Your task to perform on an android device: turn off picture-in-picture Image 0: 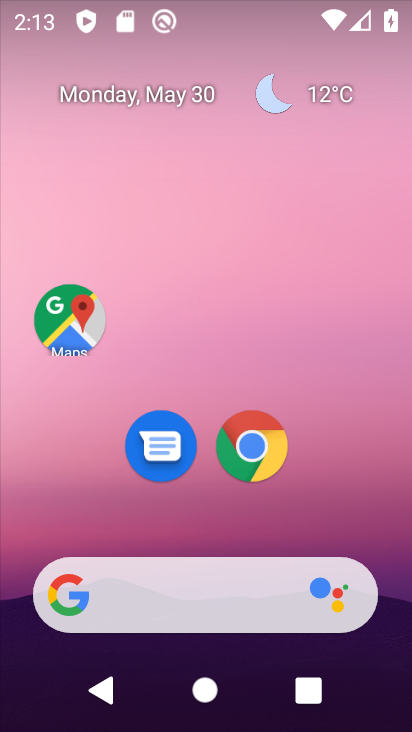
Step 0: click (257, 449)
Your task to perform on an android device: turn off picture-in-picture Image 1: 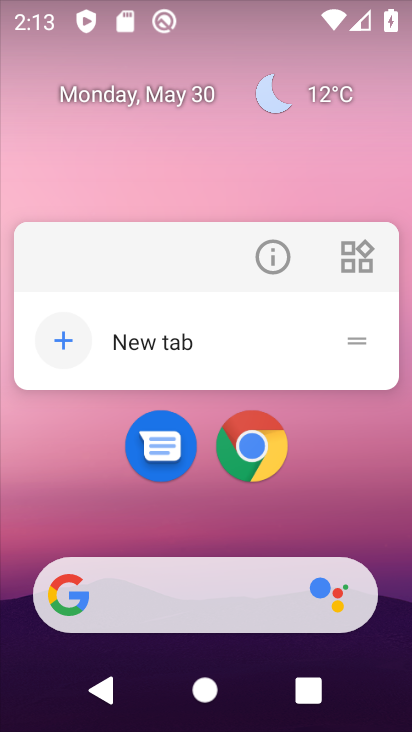
Step 1: click (275, 260)
Your task to perform on an android device: turn off picture-in-picture Image 2: 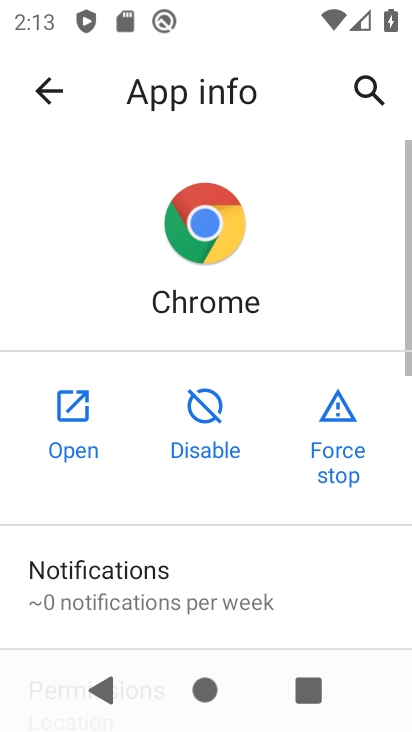
Step 2: drag from (186, 549) to (246, 359)
Your task to perform on an android device: turn off picture-in-picture Image 3: 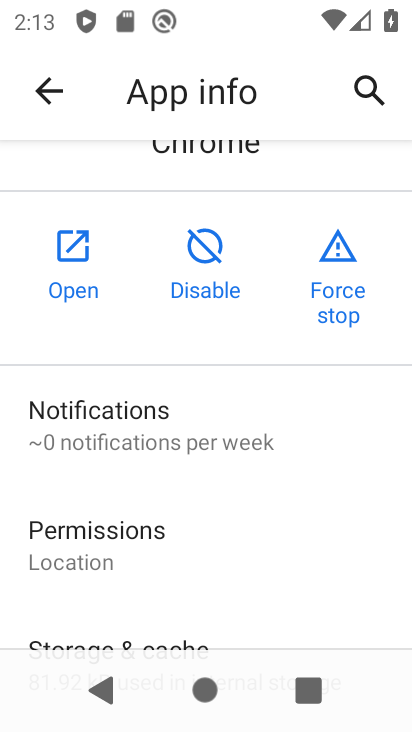
Step 3: drag from (184, 555) to (229, 450)
Your task to perform on an android device: turn off picture-in-picture Image 4: 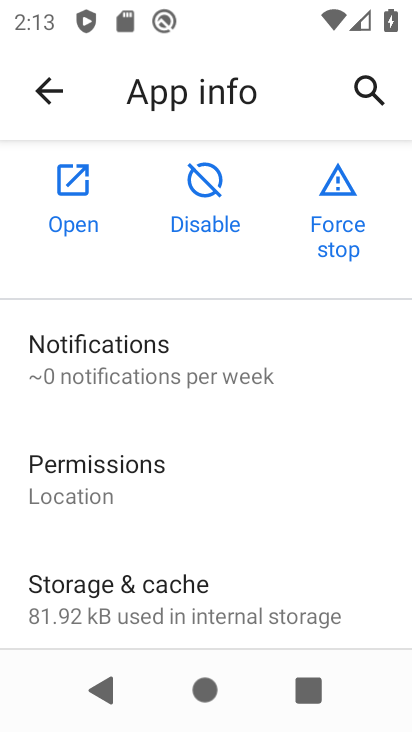
Step 4: drag from (160, 545) to (216, 371)
Your task to perform on an android device: turn off picture-in-picture Image 5: 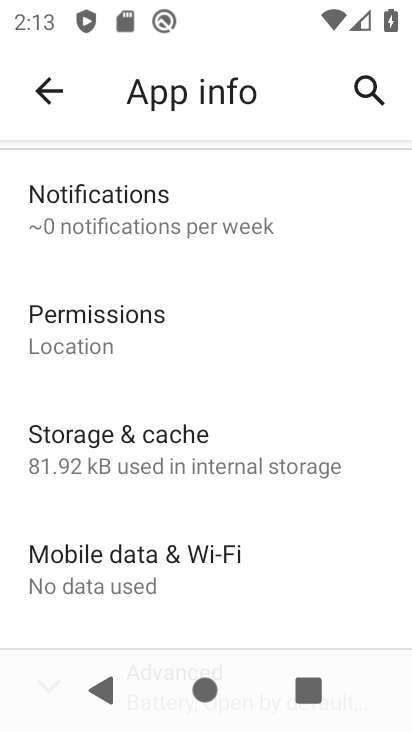
Step 5: drag from (167, 510) to (222, 395)
Your task to perform on an android device: turn off picture-in-picture Image 6: 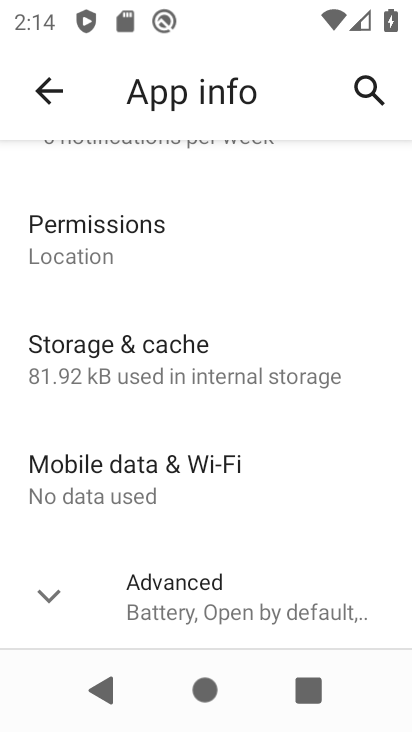
Step 6: click (192, 598)
Your task to perform on an android device: turn off picture-in-picture Image 7: 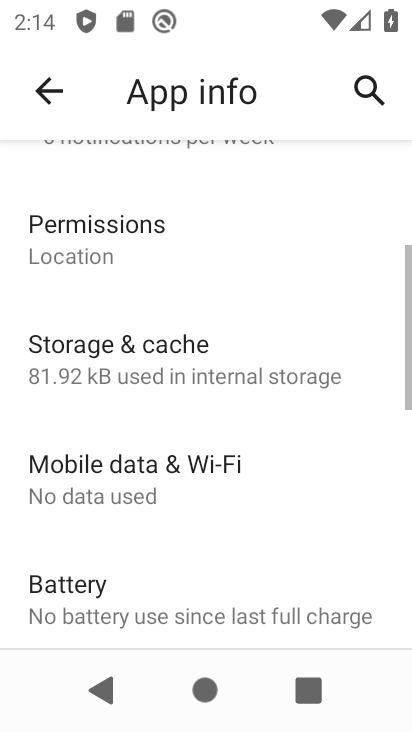
Step 7: drag from (192, 598) to (181, 441)
Your task to perform on an android device: turn off picture-in-picture Image 8: 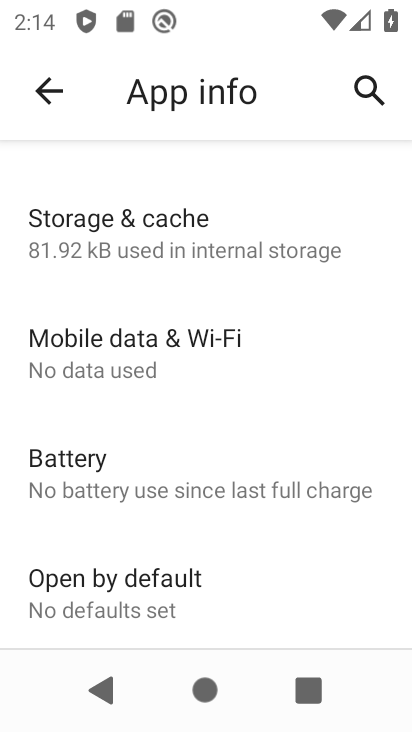
Step 8: drag from (159, 547) to (204, 430)
Your task to perform on an android device: turn off picture-in-picture Image 9: 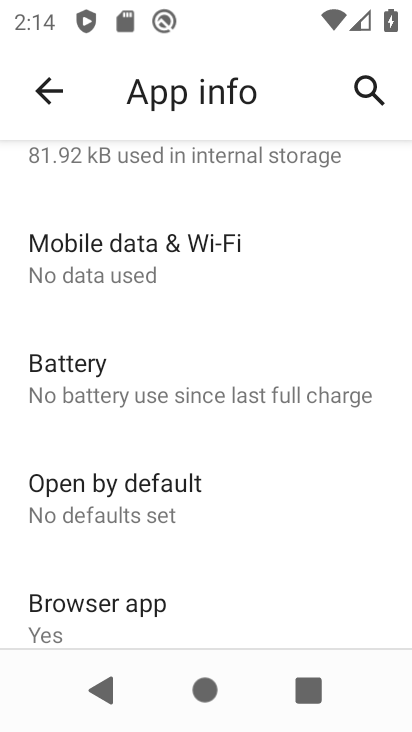
Step 9: drag from (138, 559) to (201, 473)
Your task to perform on an android device: turn off picture-in-picture Image 10: 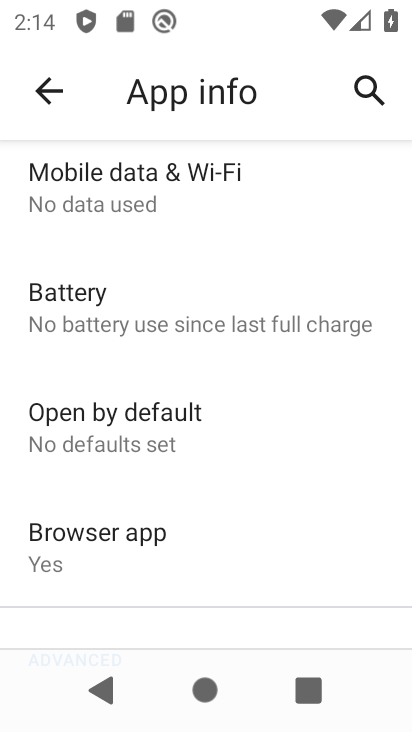
Step 10: drag from (142, 510) to (188, 401)
Your task to perform on an android device: turn off picture-in-picture Image 11: 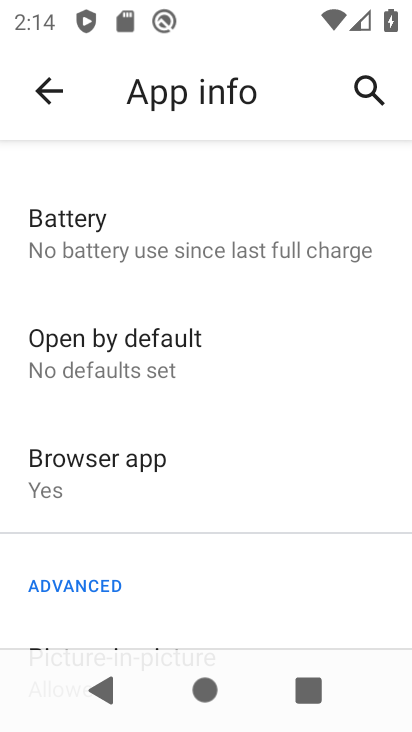
Step 11: drag from (178, 585) to (225, 459)
Your task to perform on an android device: turn off picture-in-picture Image 12: 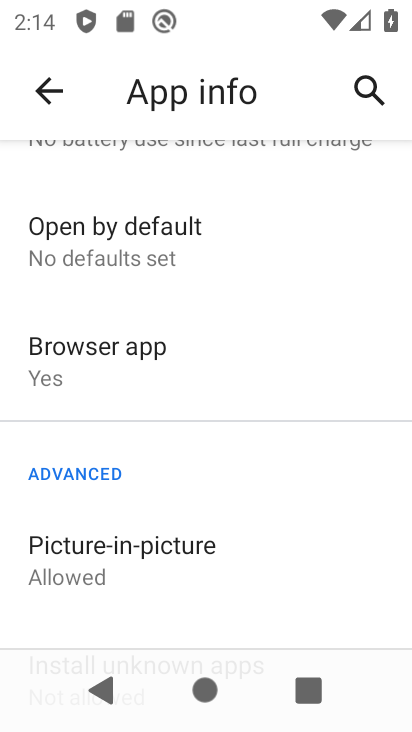
Step 12: click (177, 553)
Your task to perform on an android device: turn off picture-in-picture Image 13: 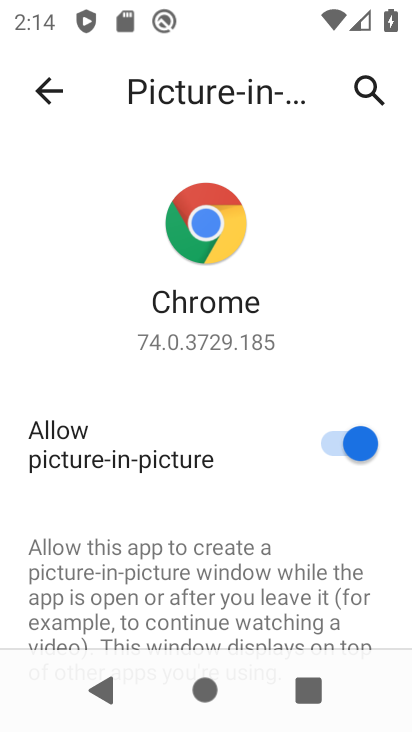
Step 13: click (341, 444)
Your task to perform on an android device: turn off picture-in-picture Image 14: 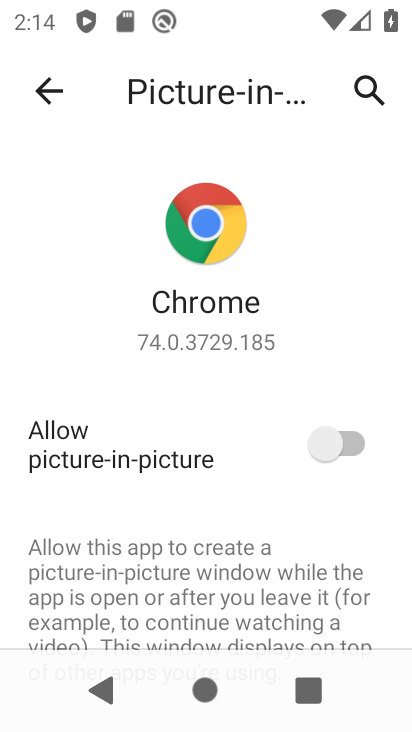
Step 14: task complete